Your task to perform on an android device: turn on wifi Image 0: 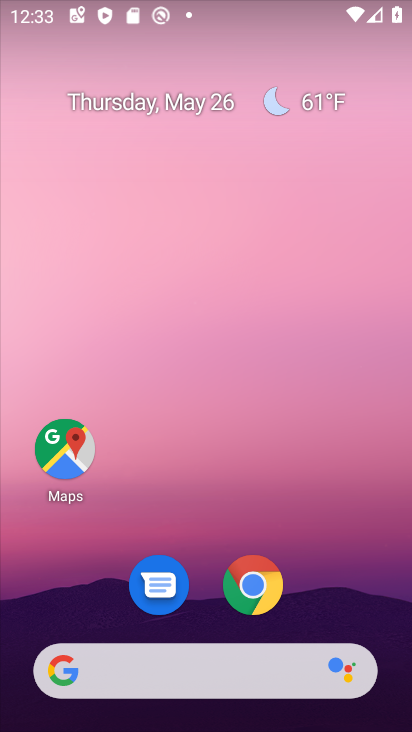
Step 0: drag from (215, 495) to (239, 35)
Your task to perform on an android device: turn on wifi Image 1: 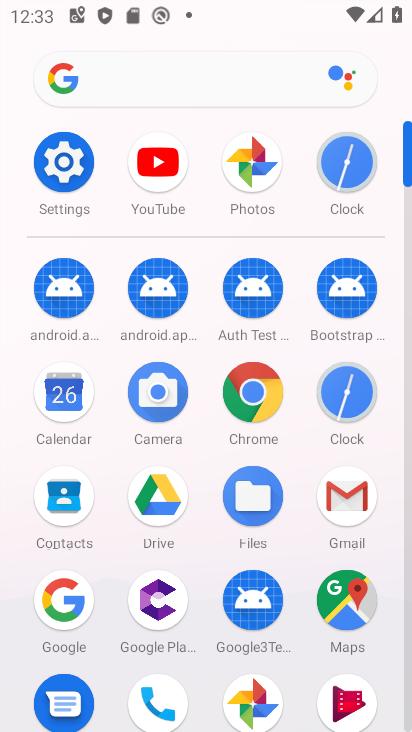
Step 1: click (85, 139)
Your task to perform on an android device: turn on wifi Image 2: 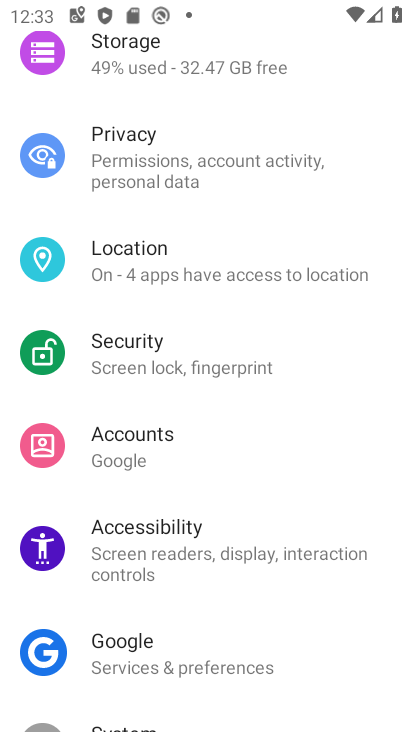
Step 2: drag from (220, 253) to (291, 705)
Your task to perform on an android device: turn on wifi Image 3: 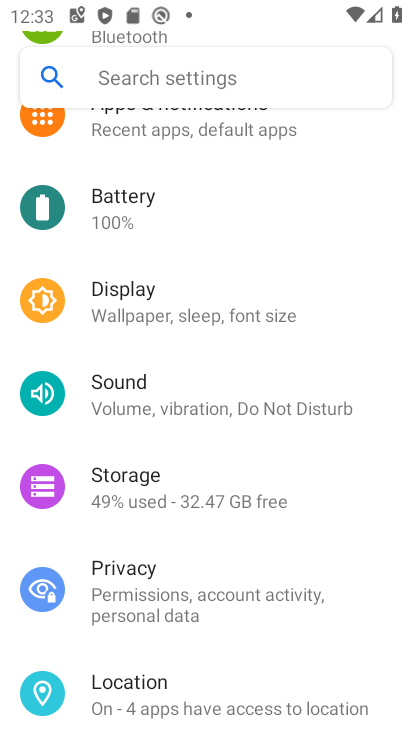
Step 3: drag from (199, 179) to (210, 652)
Your task to perform on an android device: turn on wifi Image 4: 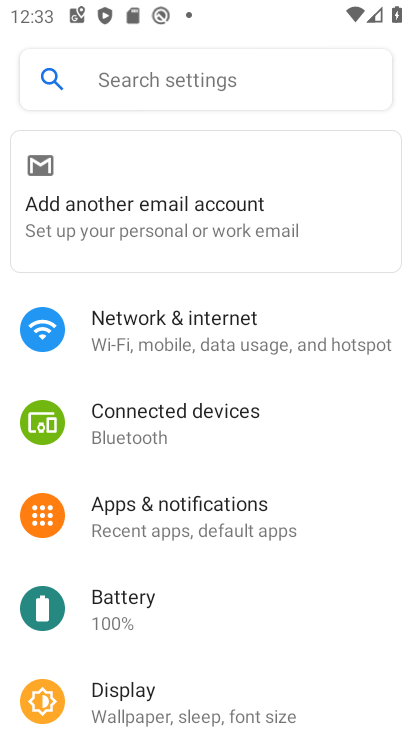
Step 4: click (191, 331)
Your task to perform on an android device: turn on wifi Image 5: 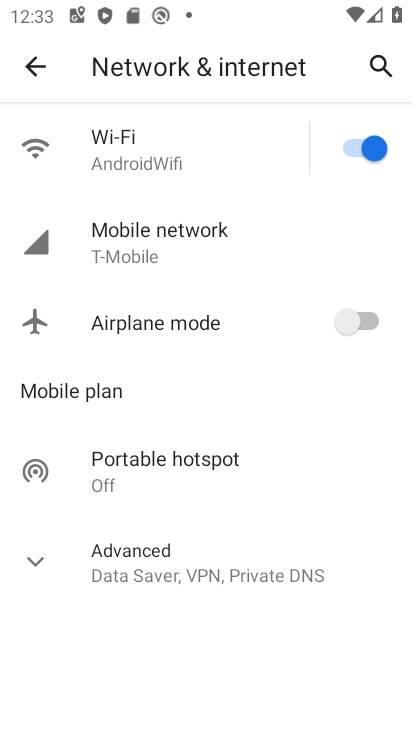
Step 5: task complete